Your task to perform on an android device: Open the web browser Image 0: 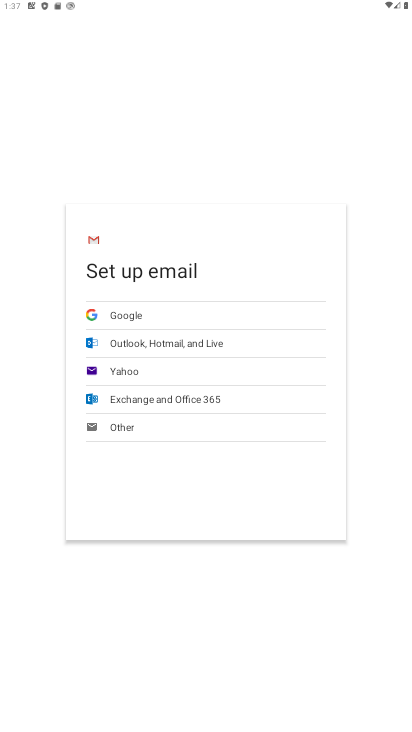
Step 0: press home button
Your task to perform on an android device: Open the web browser Image 1: 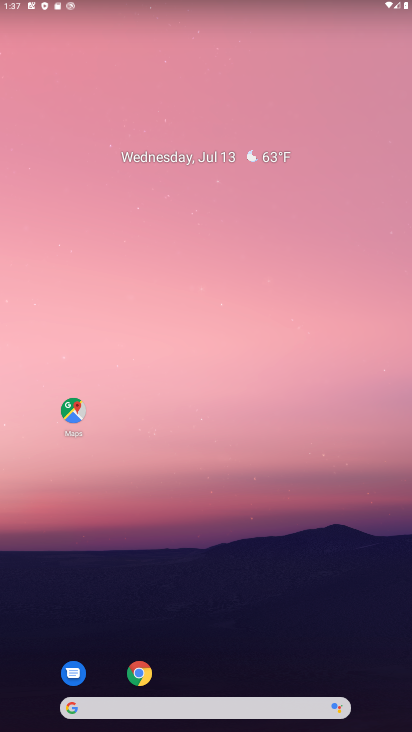
Step 1: drag from (271, 650) to (270, 227)
Your task to perform on an android device: Open the web browser Image 2: 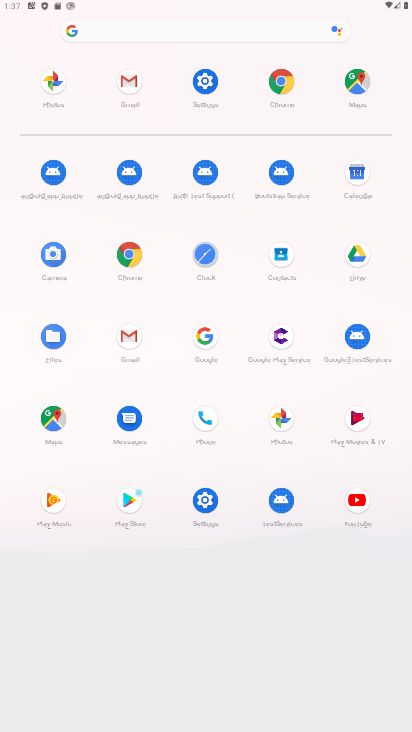
Step 2: click (283, 81)
Your task to perform on an android device: Open the web browser Image 3: 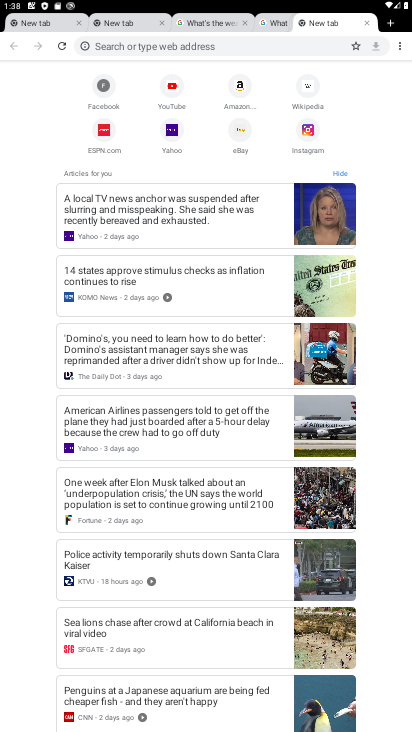
Step 3: task complete